Your task to perform on an android device: snooze an email in the gmail app Image 0: 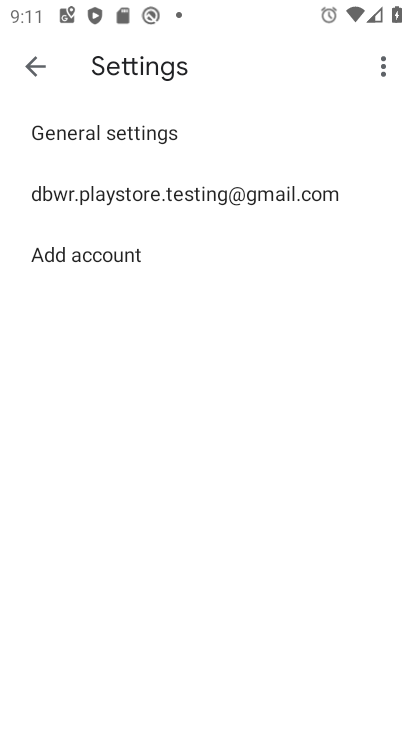
Step 0: click (32, 62)
Your task to perform on an android device: snooze an email in the gmail app Image 1: 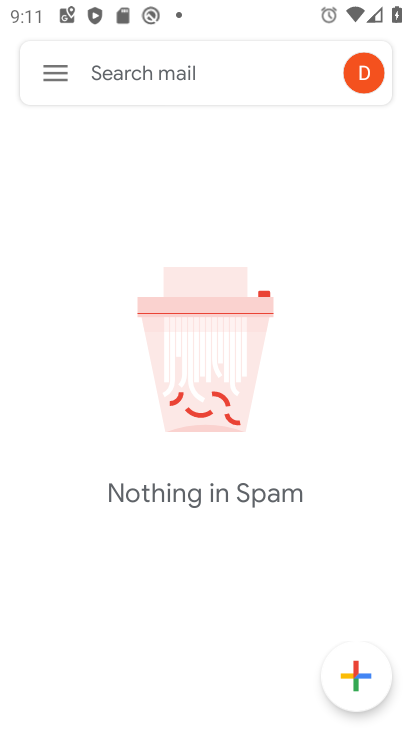
Step 1: click (52, 69)
Your task to perform on an android device: snooze an email in the gmail app Image 2: 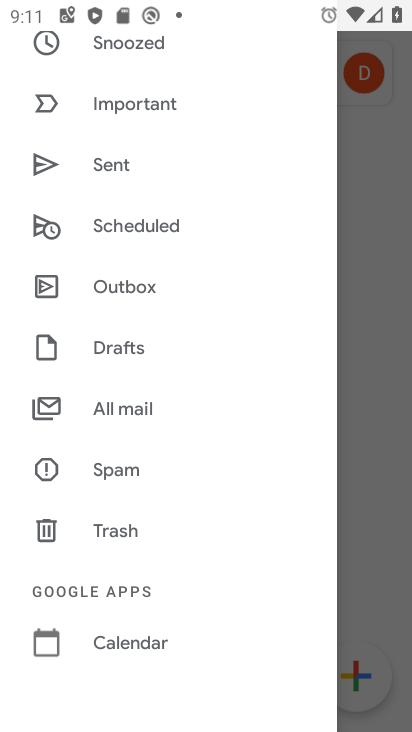
Step 2: click (129, 392)
Your task to perform on an android device: snooze an email in the gmail app Image 3: 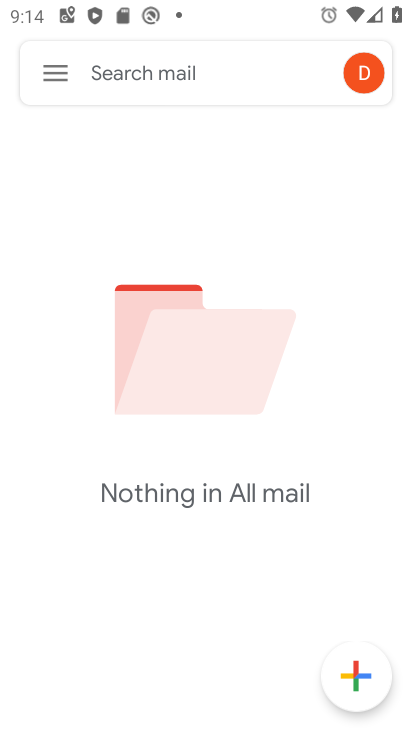
Step 3: task complete